Your task to perform on an android device: delete the emails in spam in the gmail app Image 0: 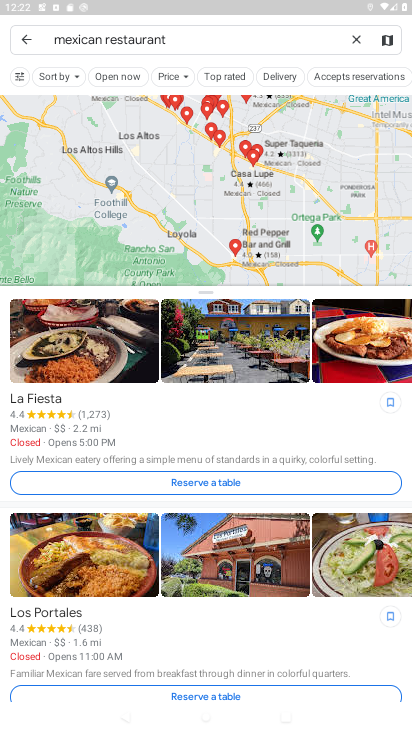
Step 0: press home button
Your task to perform on an android device: delete the emails in spam in the gmail app Image 1: 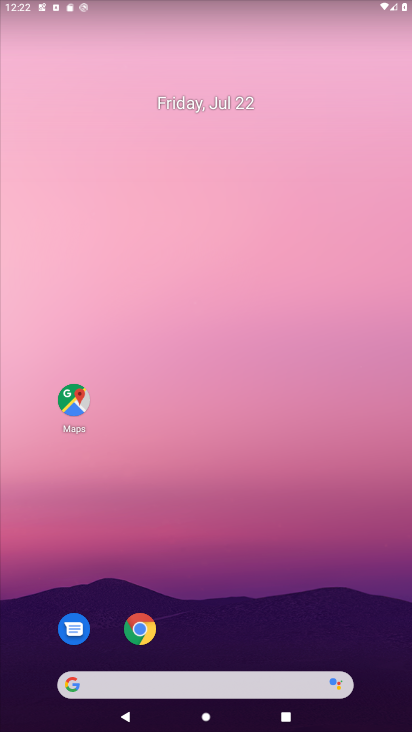
Step 1: drag from (311, 509) to (411, 128)
Your task to perform on an android device: delete the emails in spam in the gmail app Image 2: 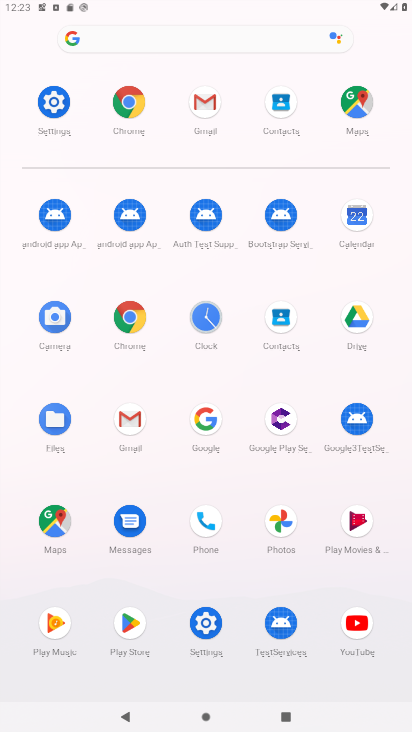
Step 2: click (131, 432)
Your task to perform on an android device: delete the emails in spam in the gmail app Image 3: 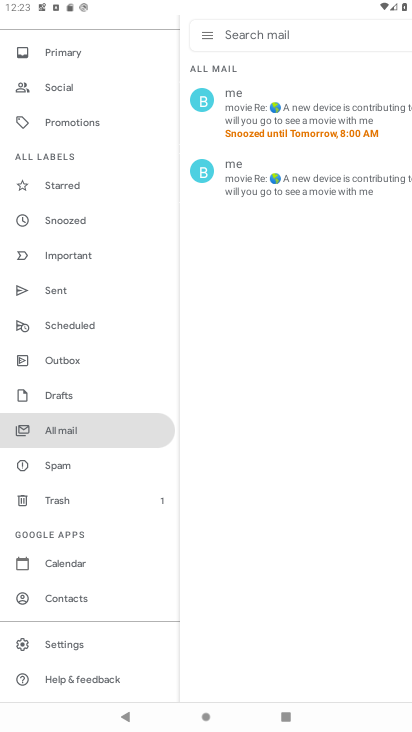
Step 3: click (65, 462)
Your task to perform on an android device: delete the emails in spam in the gmail app Image 4: 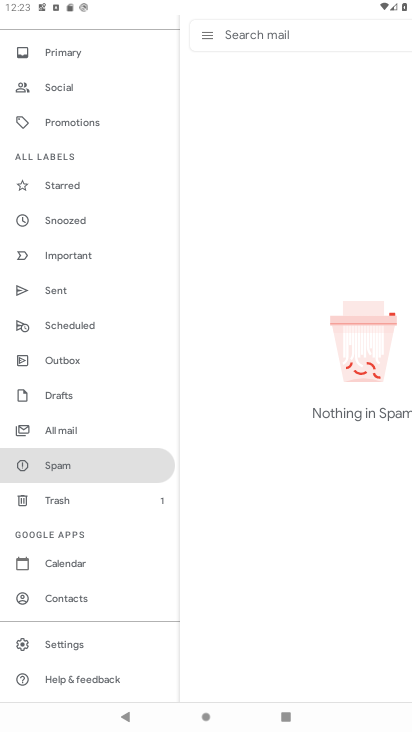
Step 4: task complete